Your task to perform on an android device: open device folders in google photos Image 0: 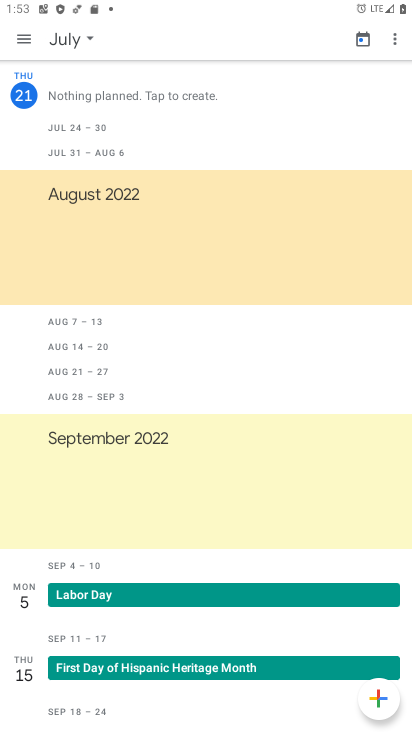
Step 0: press home button
Your task to perform on an android device: open device folders in google photos Image 1: 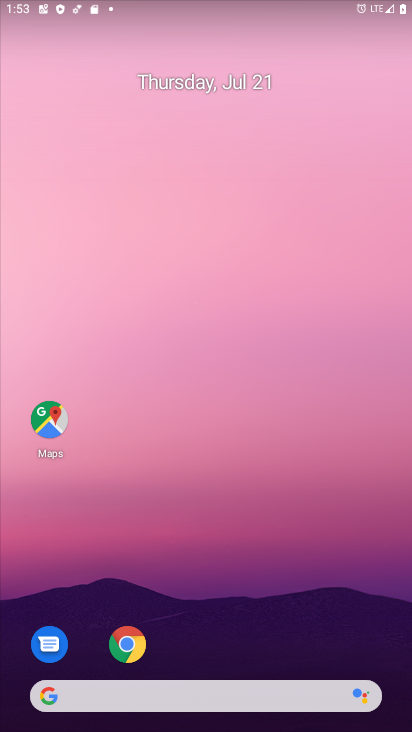
Step 1: drag from (176, 580) to (177, 370)
Your task to perform on an android device: open device folders in google photos Image 2: 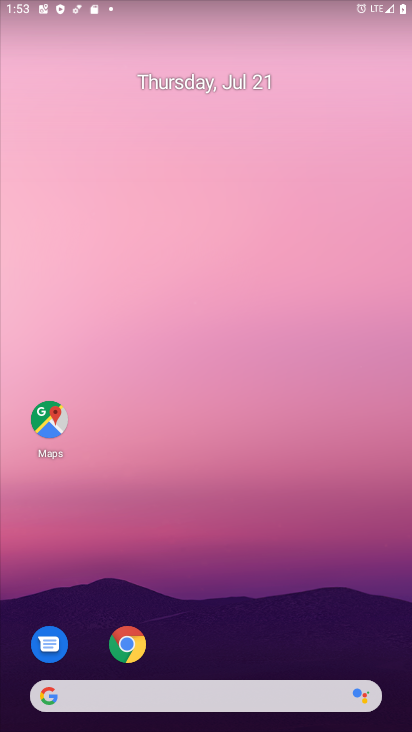
Step 2: drag from (244, 671) to (307, 185)
Your task to perform on an android device: open device folders in google photos Image 3: 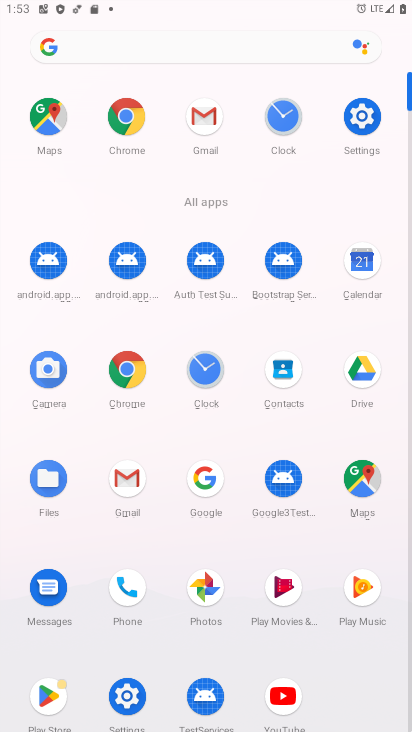
Step 3: click (213, 588)
Your task to perform on an android device: open device folders in google photos Image 4: 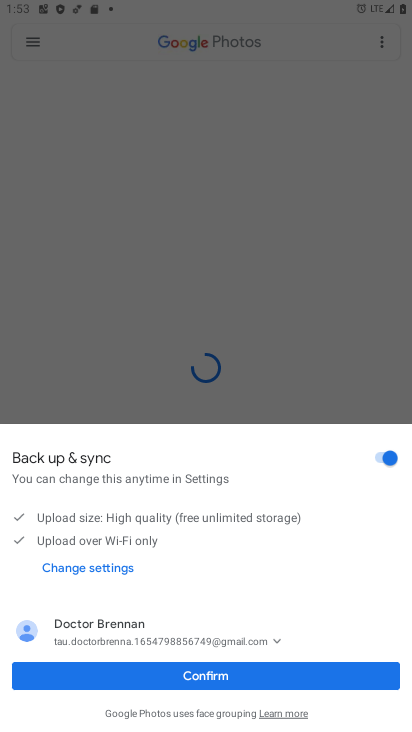
Step 4: click (195, 684)
Your task to perform on an android device: open device folders in google photos Image 5: 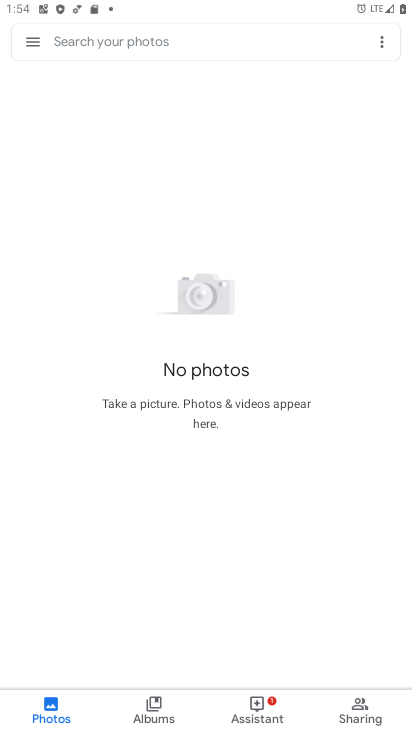
Step 5: click (33, 50)
Your task to perform on an android device: open device folders in google photos Image 6: 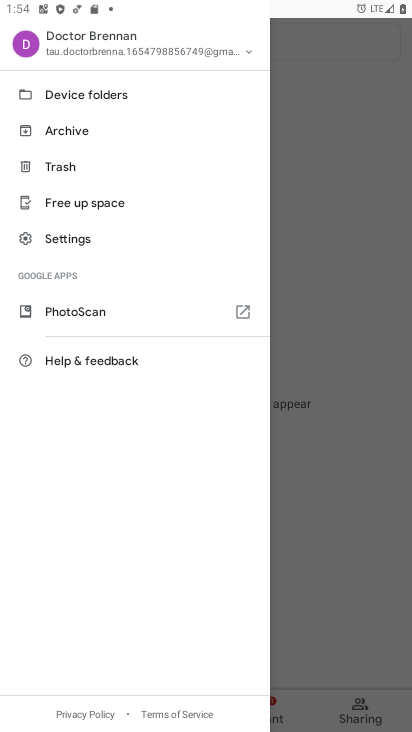
Step 6: click (65, 98)
Your task to perform on an android device: open device folders in google photos Image 7: 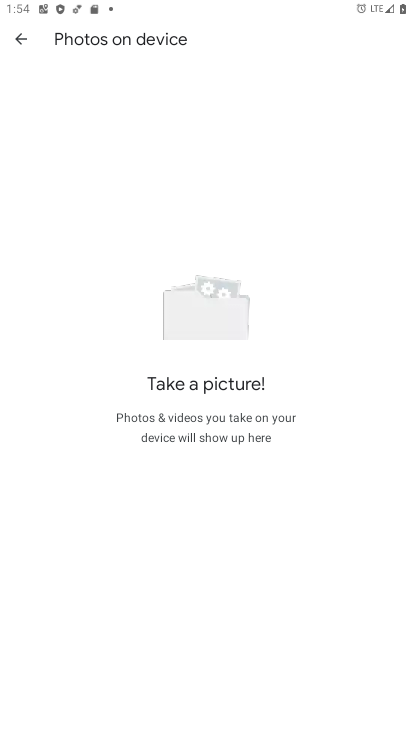
Step 7: task complete